Your task to perform on an android device: turn off priority inbox in the gmail app Image 0: 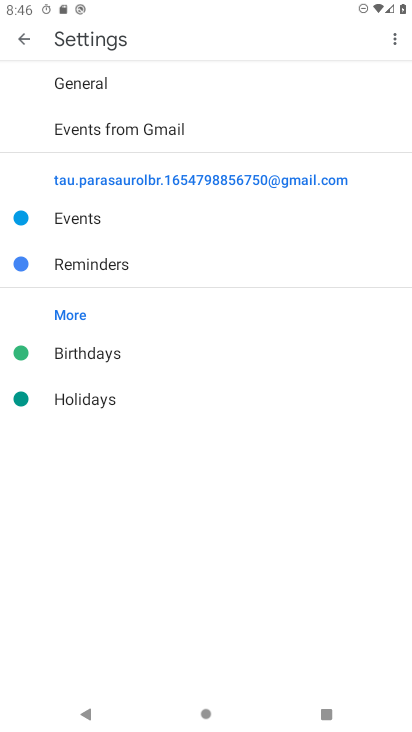
Step 0: press back button
Your task to perform on an android device: turn off priority inbox in the gmail app Image 1: 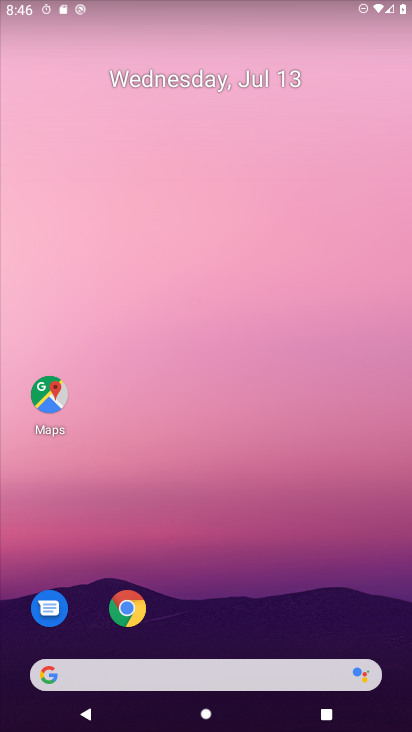
Step 1: drag from (246, 600) to (247, 163)
Your task to perform on an android device: turn off priority inbox in the gmail app Image 2: 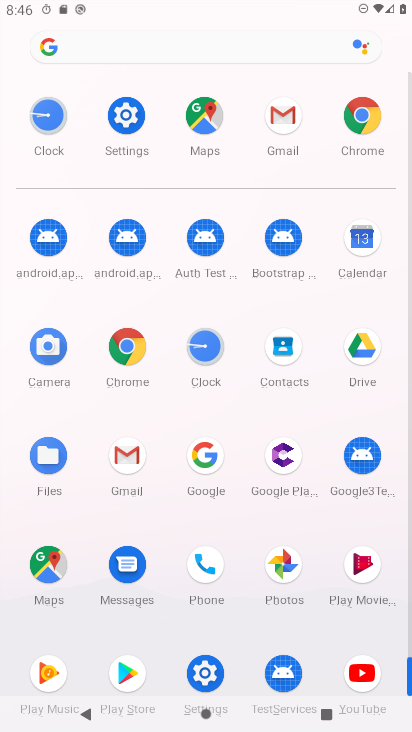
Step 2: click (276, 110)
Your task to perform on an android device: turn off priority inbox in the gmail app Image 3: 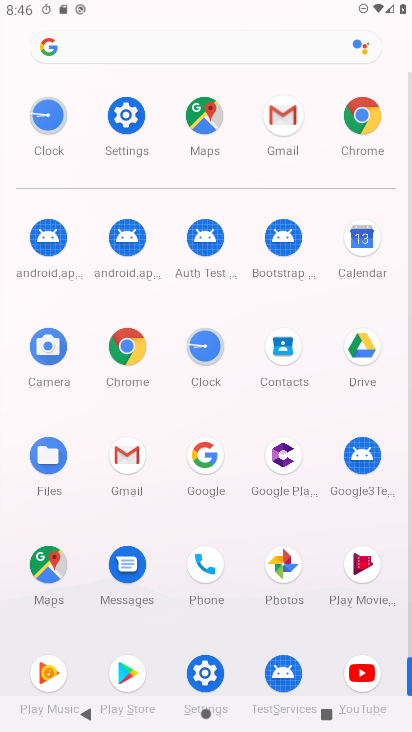
Step 3: click (277, 110)
Your task to perform on an android device: turn off priority inbox in the gmail app Image 4: 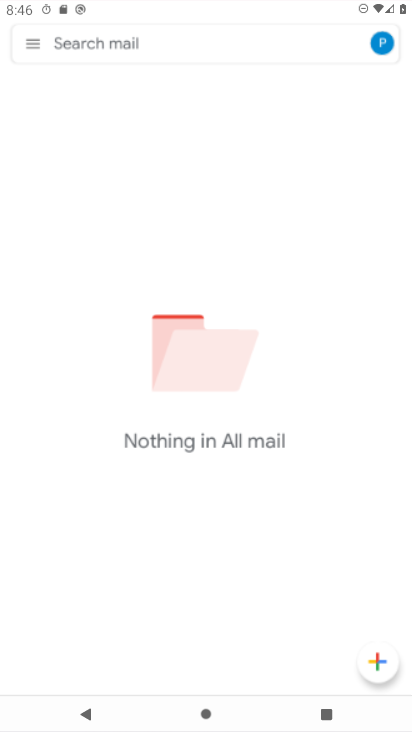
Step 4: click (278, 110)
Your task to perform on an android device: turn off priority inbox in the gmail app Image 5: 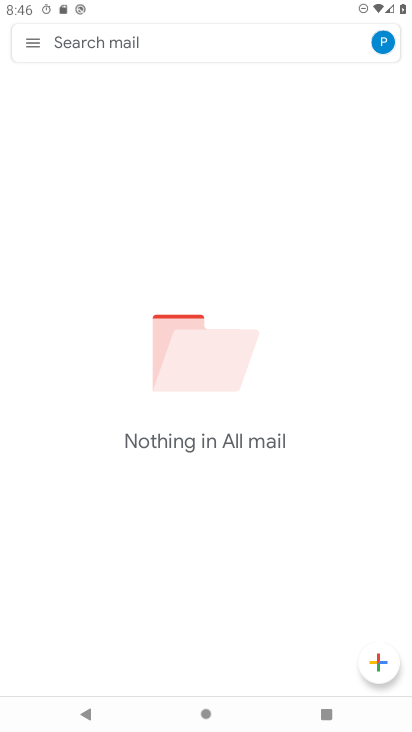
Step 5: click (28, 42)
Your task to perform on an android device: turn off priority inbox in the gmail app Image 6: 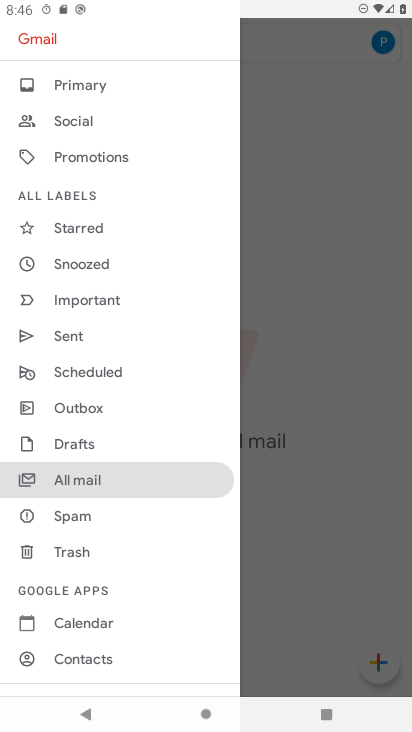
Step 6: drag from (112, 588) to (152, 220)
Your task to perform on an android device: turn off priority inbox in the gmail app Image 7: 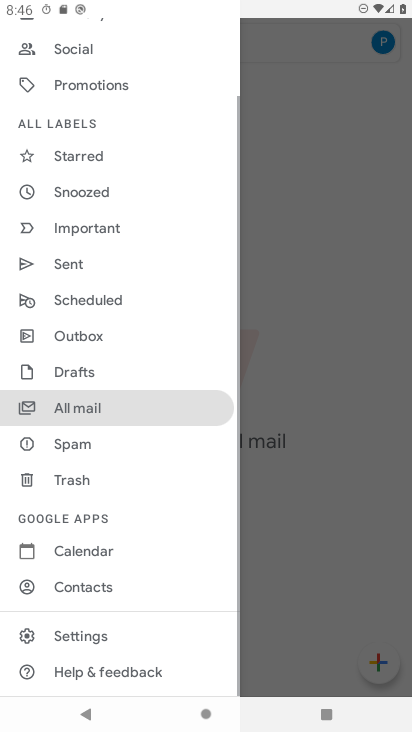
Step 7: click (80, 619)
Your task to perform on an android device: turn off priority inbox in the gmail app Image 8: 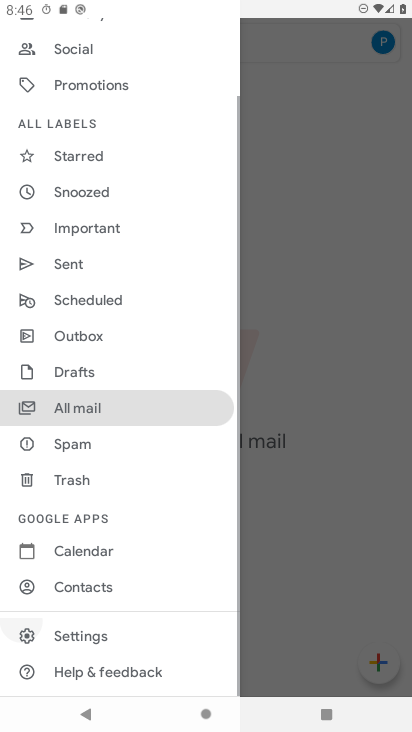
Step 8: click (76, 630)
Your task to perform on an android device: turn off priority inbox in the gmail app Image 9: 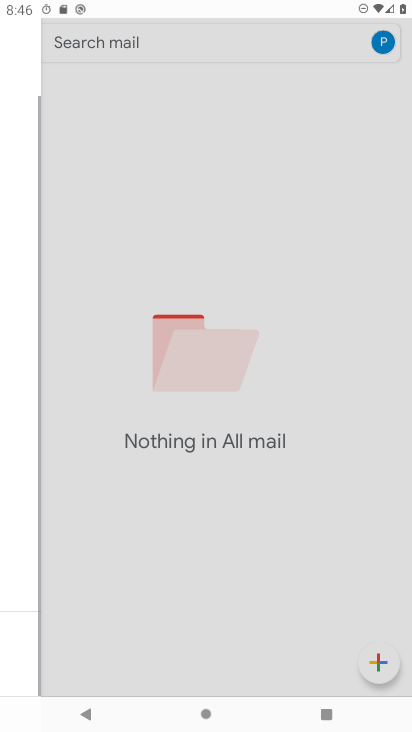
Step 9: click (77, 634)
Your task to perform on an android device: turn off priority inbox in the gmail app Image 10: 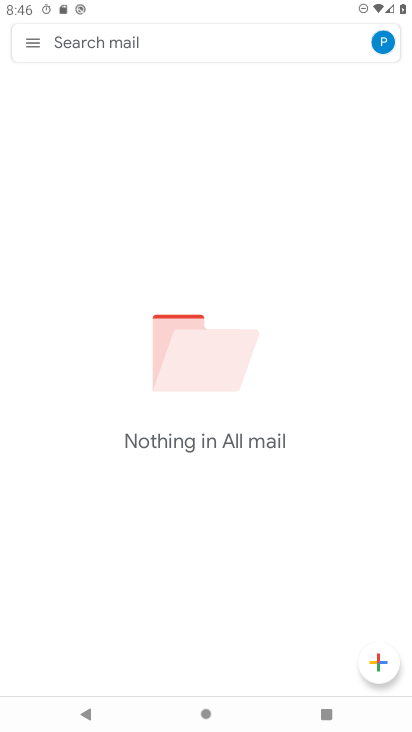
Step 10: click (78, 634)
Your task to perform on an android device: turn off priority inbox in the gmail app Image 11: 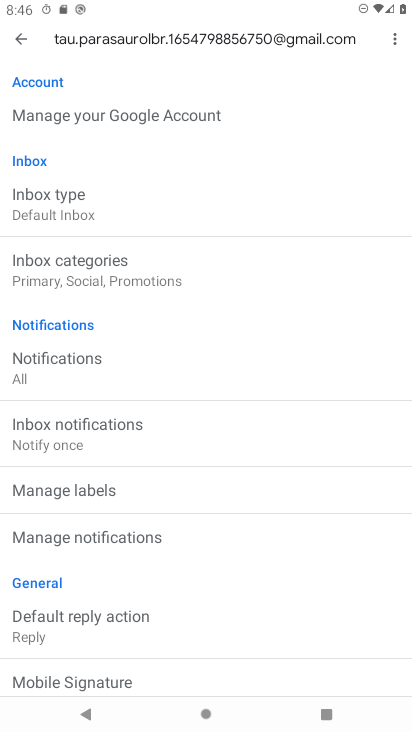
Step 11: click (44, 205)
Your task to perform on an android device: turn off priority inbox in the gmail app Image 12: 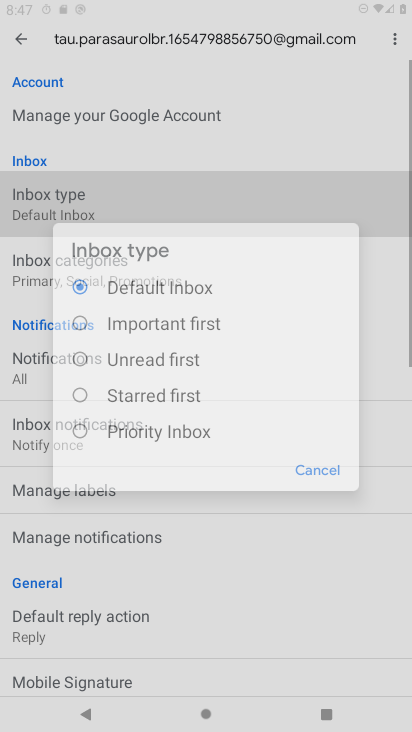
Step 12: click (43, 205)
Your task to perform on an android device: turn off priority inbox in the gmail app Image 13: 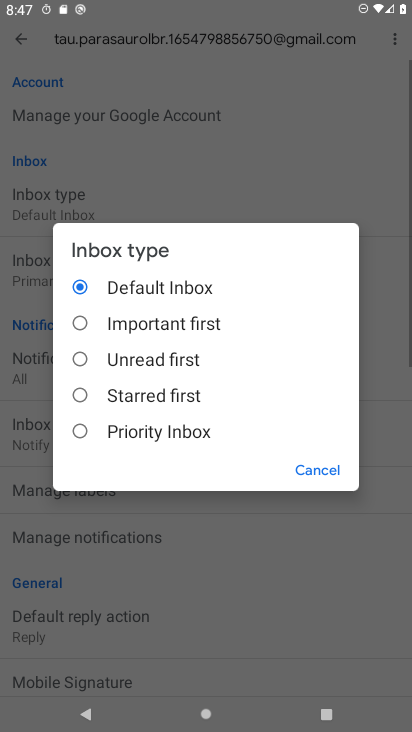
Step 13: click (44, 206)
Your task to perform on an android device: turn off priority inbox in the gmail app Image 14: 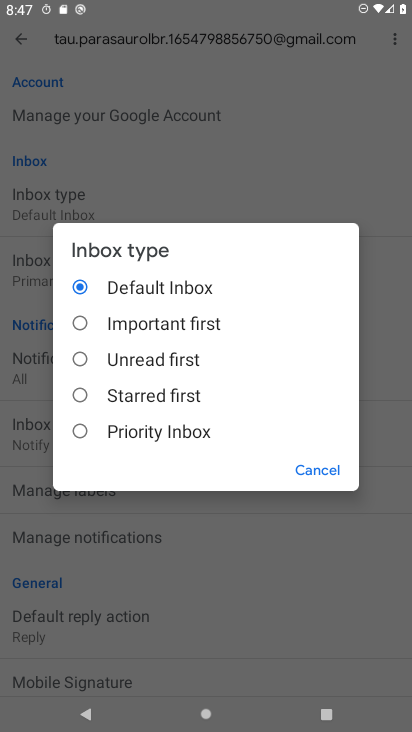
Step 14: click (82, 436)
Your task to perform on an android device: turn off priority inbox in the gmail app Image 15: 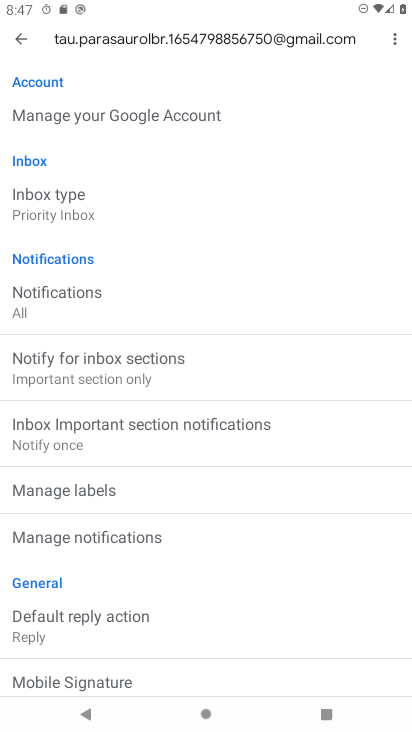
Step 15: task complete